Your task to perform on an android device: check android version Image 0: 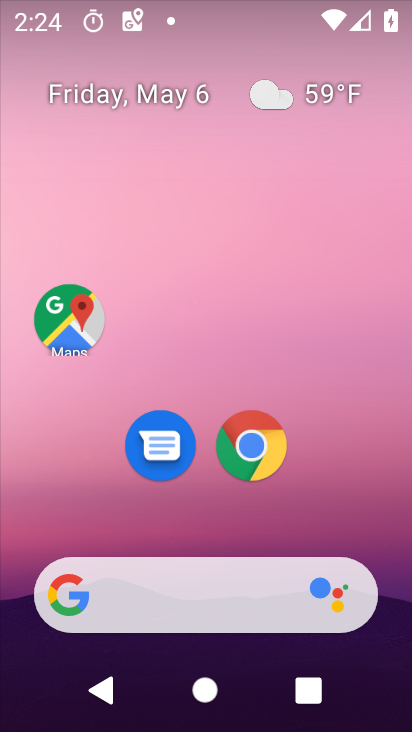
Step 0: drag from (350, 541) to (206, 97)
Your task to perform on an android device: check android version Image 1: 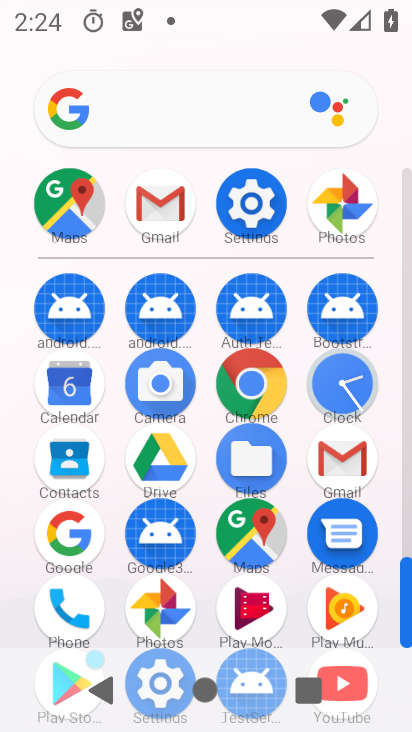
Step 1: click (255, 201)
Your task to perform on an android device: check android version Image 2: 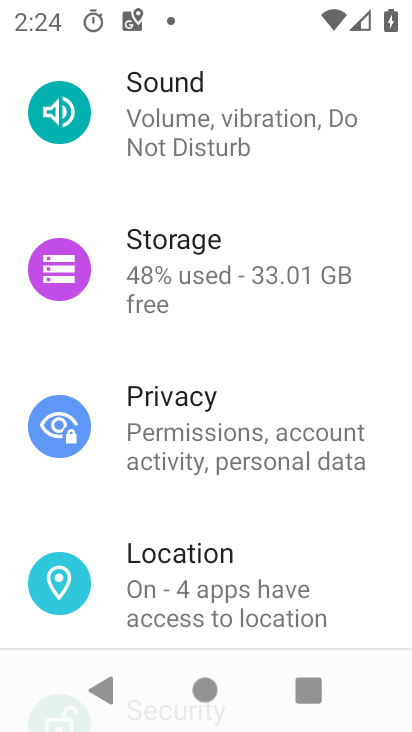
Step 2: drag from (213, 375) to (192, 174)
Your task to perform on an android device: check android version Image 3: 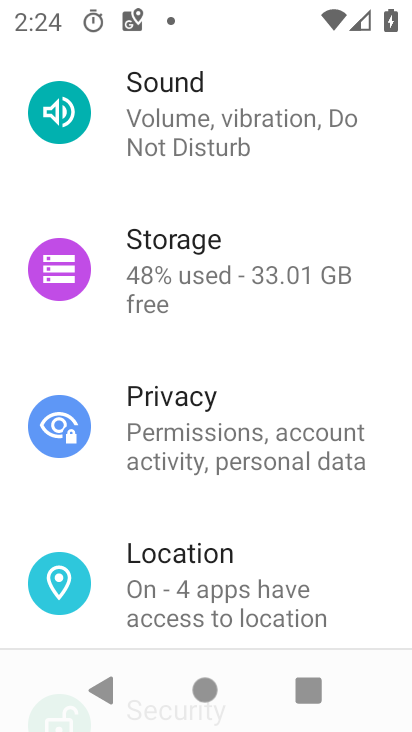
Step 3: drag from (206, 435) to (150, 5)
Your task to perform on an android device: check android version Image 4: 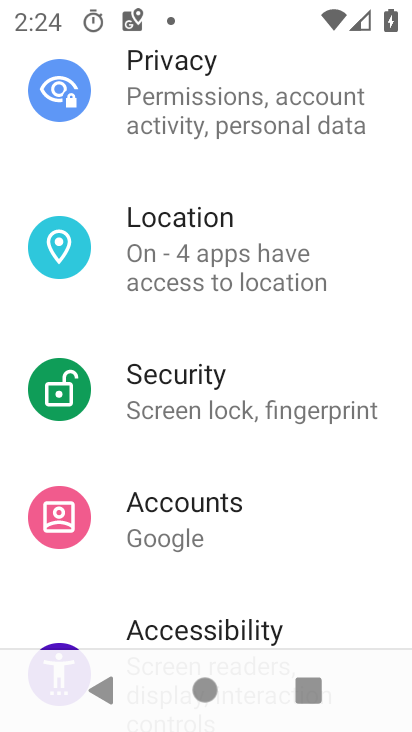
Step 4: drag from (227, 504) to (148, 187)
Your task to perform on an android device: check android version Image 5: 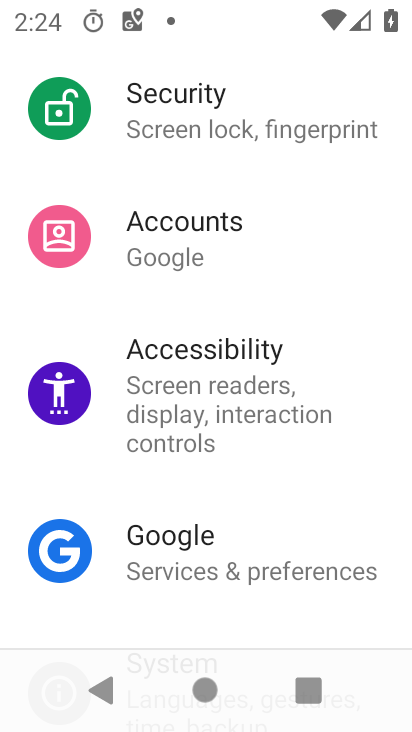
Step 5: drag from (232, 519) to (186, 99)
Your task to perform on an android device: check android version Image 6: 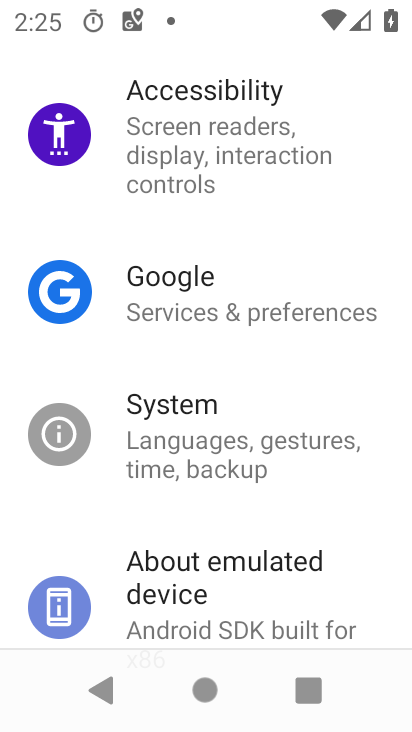
Step 6: drag from (247, 560) to (253, 139)
Your task to perform on an android device: check android version Image 7: 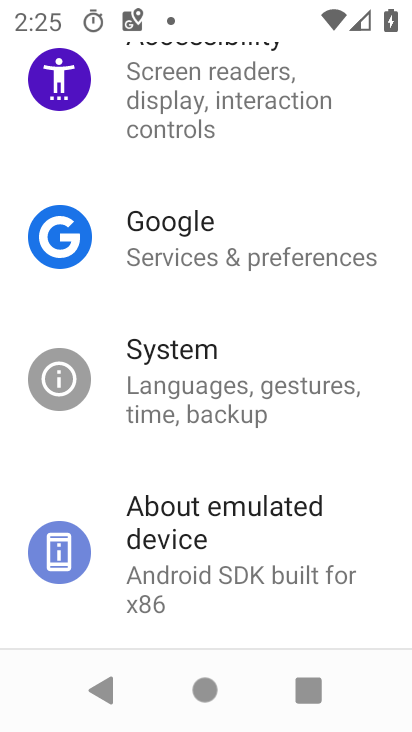
Step 7: click (175, 551)
Your task to perform on an android device: check android version Image 8: 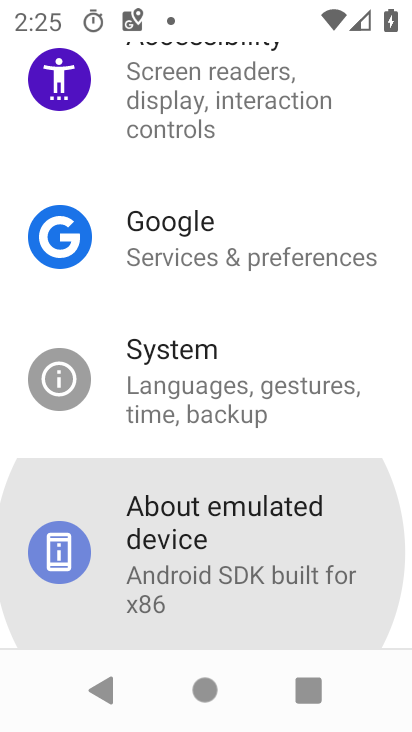
Step 8: click (174, 550)
Your task to perform on an android device: check android version Image 9: 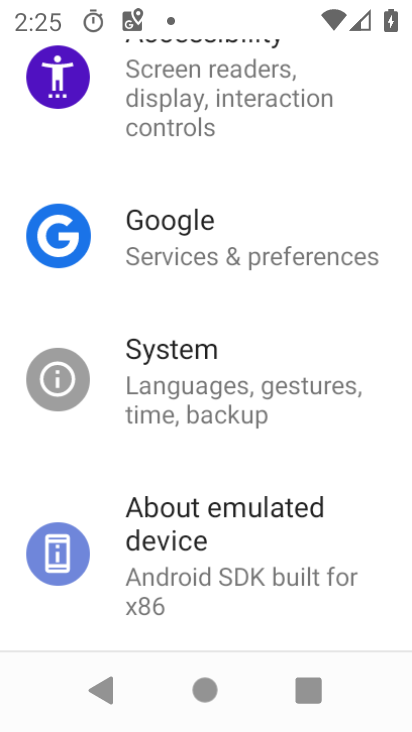
Step 9: click (173, 549)
Your task to perform on an android device: check android version Image 10: 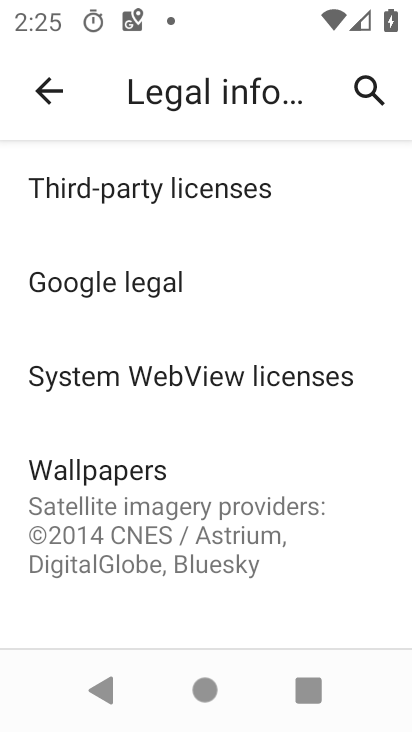
Step 10: drag from (129, 420) to (98, 198)
Your task to perform on an android device: check android version Image 11: 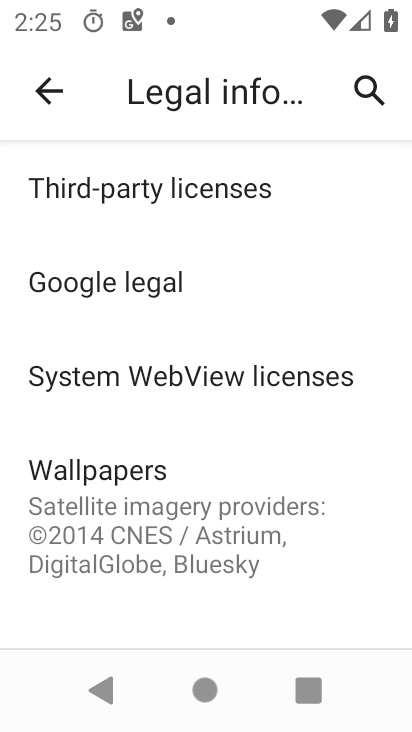
Step 11: drag from (216, 484) to (112, 53)
Your task to perform on an android device: check android version Image 12: 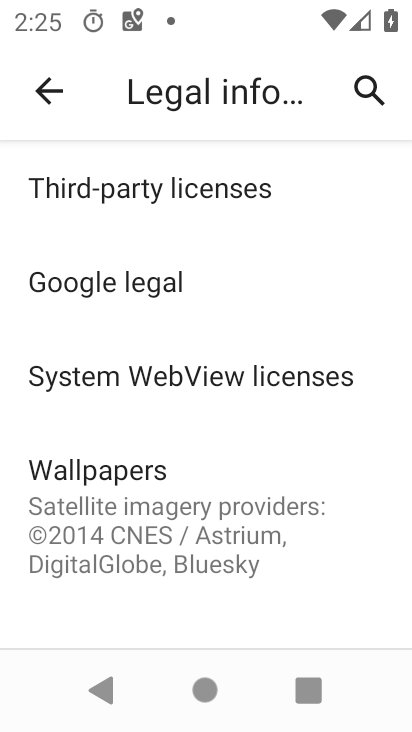
Step 12: click (39, 89)
Your task to perform on an android device: check android version Image 13: 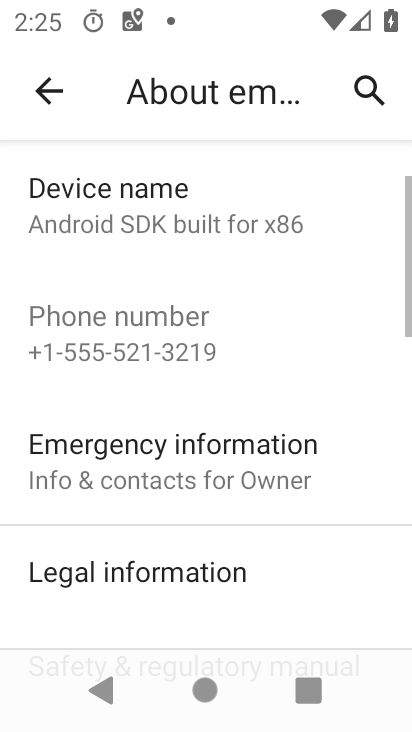
Step 13: task complete